Your task to perform on an android device: turn on sleep mode Image 0: 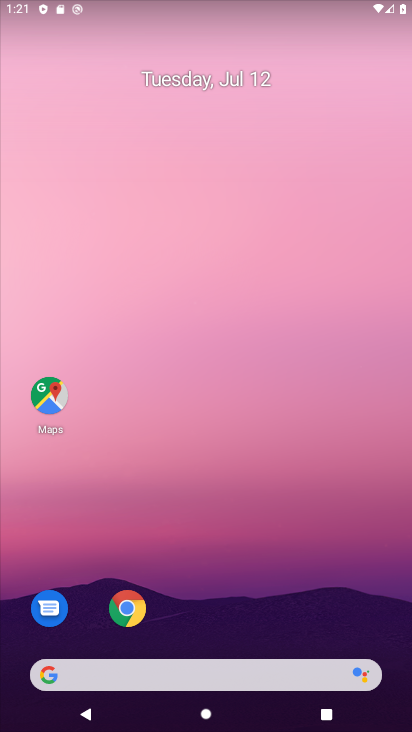
Step 0: drag from (223, 660) to (320, 113)
Your task to perform on an android device: turn on sleep mode Image 1: 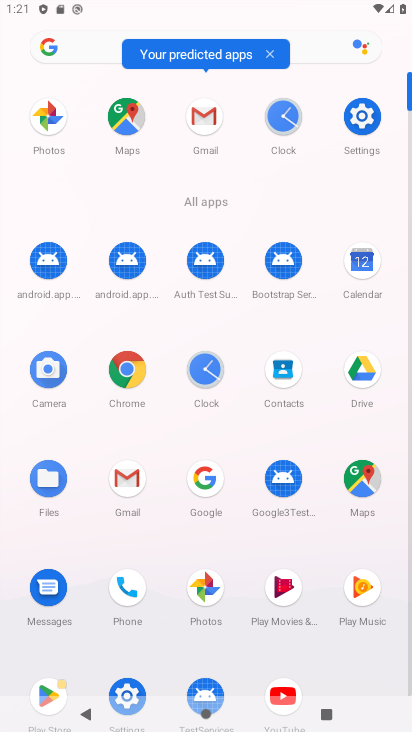
Step 1: click (116, 684)
Your task to perform on an android device: turn on sleep mode Image 2: 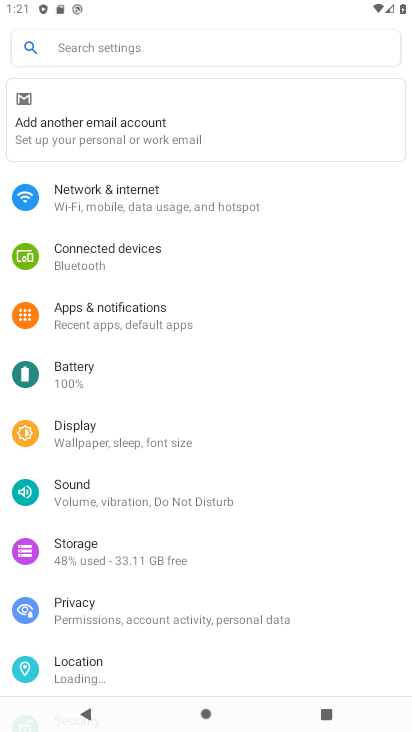
Step 2: click (105, 443)
Your task to perform on an android device: turn on sleep mode Image 3: 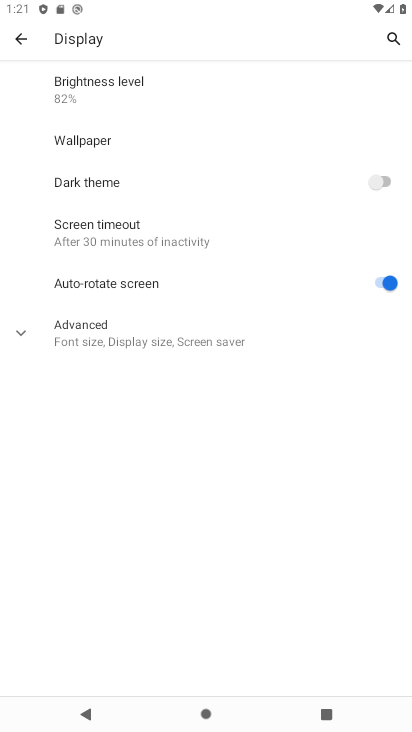
Step 3: click (183, 351)
Your task to perform on an android device: turn on sleep mode Image 4: 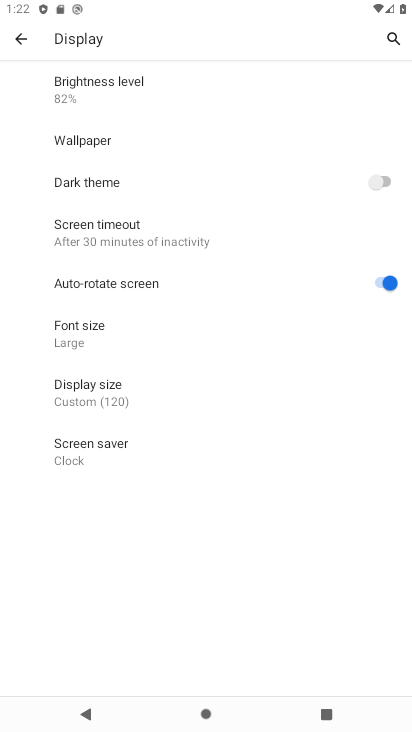
Step 4: task complete